Your task to perform on an android device: Open the calendar and show me this week's events Image 0: 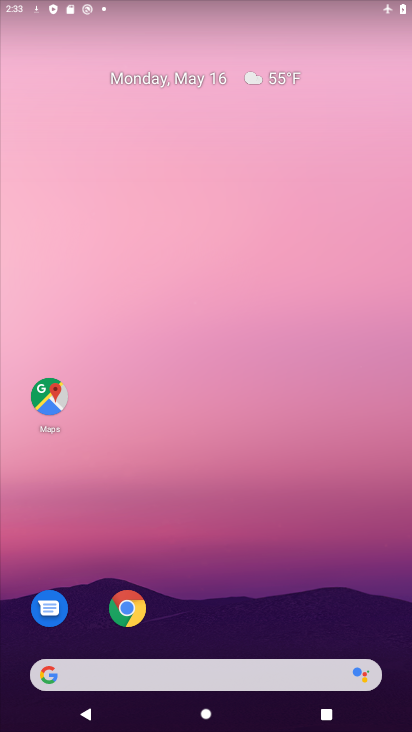
Step 0: drag from (176, 575) to (120, 256)
Your task to perform on an android device: Open the calendar and show me this week's events Image 1: 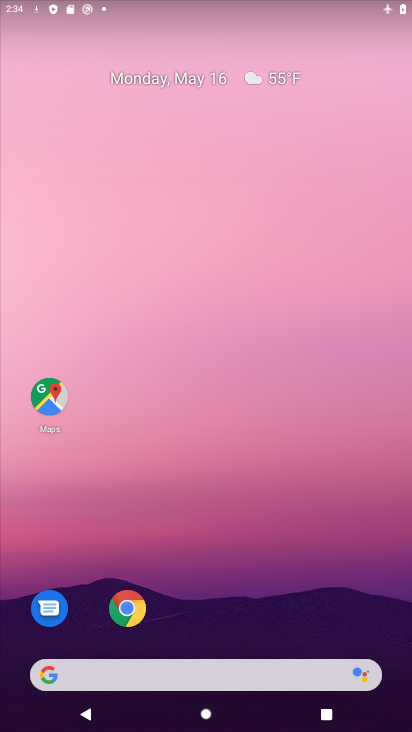
Step 1: drag from (198, 621) to (204, 66)
Your task to perform on an android device: Open the calendar and show me this week's events Image 2: 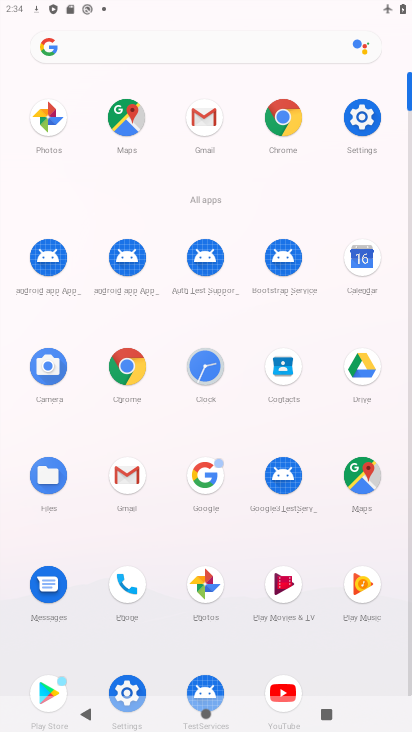
Step 2: click (377, 256)
Your task to perform on an android device: Open the calendar and show me this week's events Image 3: 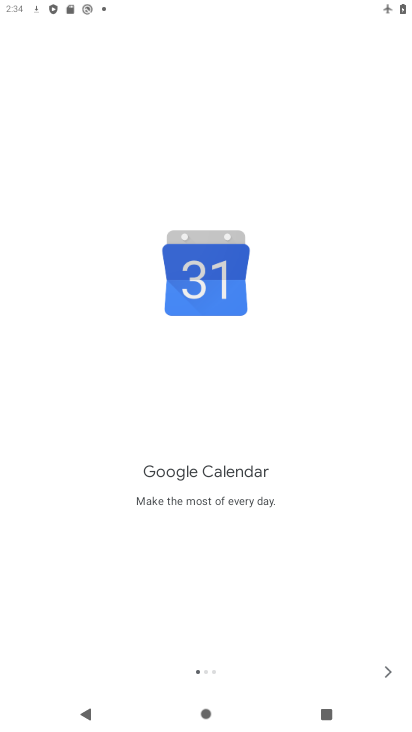
Step 3: click (380, 669)
Your task to perform on an android device: Open the calendar and show me this week's events Image 4: 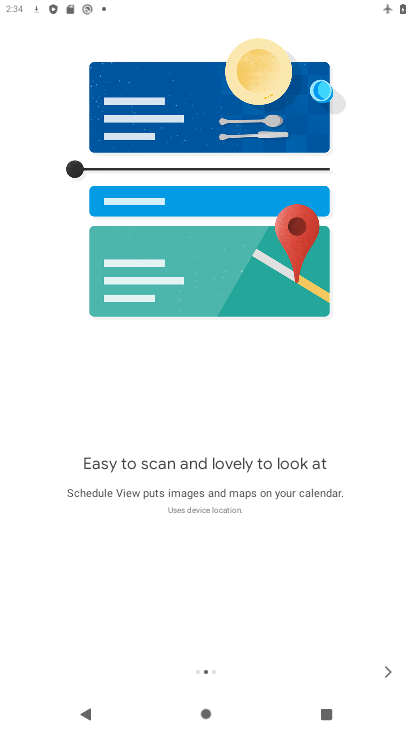
Step 4: click (380, 669)
Your task to perform on an android device: Open the calendar and show me this week's events Image 5: 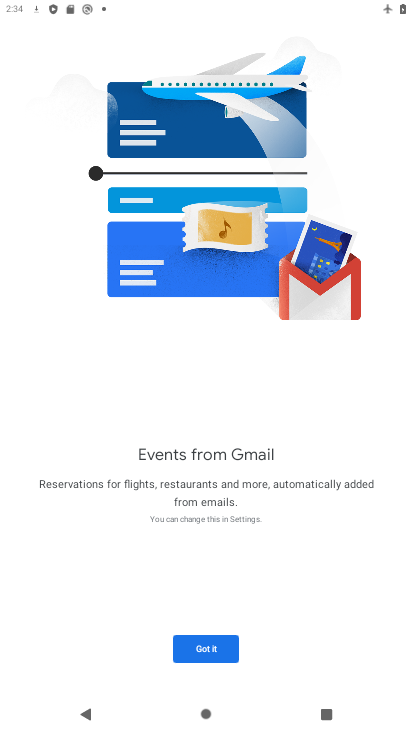
Step 5: click (381, 668)
Your task to perform on an android device: Open the calendar and show me this week's events Image 6: 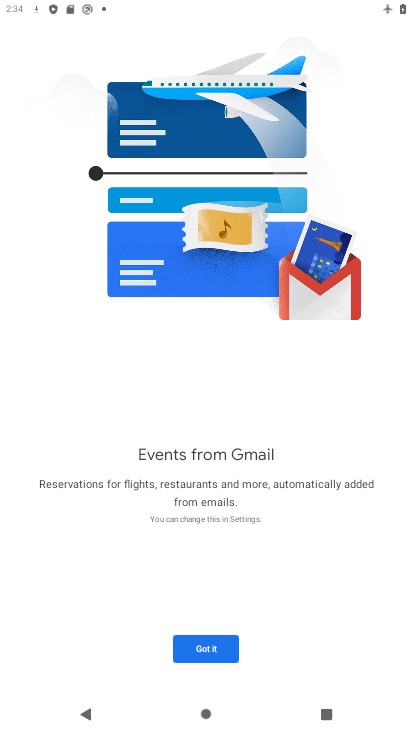
Step 6: click (220, 646)
Your task to perform on an android device: Open the calendar and show me this week's events Image 7: 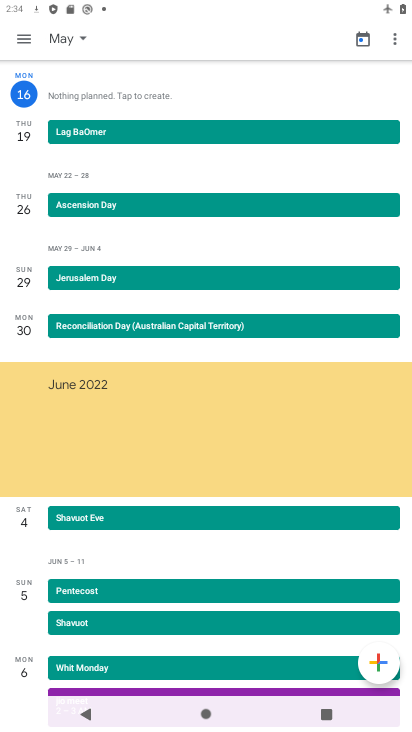
Step 7: click (28, 35)
Your task to perform on an android device: Open the calendar and show me this week's events Image 8: 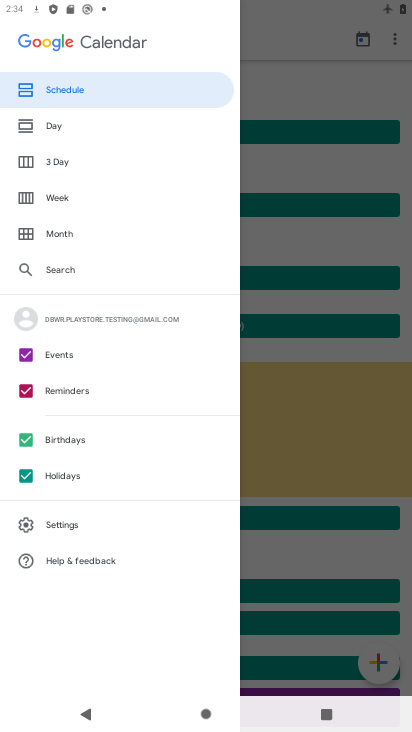
Step 8: click (85, 82)
Your task to perform on an android device: Open the calendar and show me this week's events Image 9: 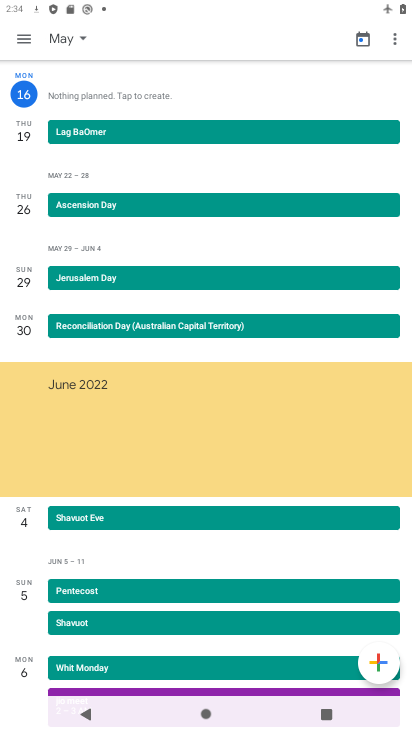
Step 9: task complete